Your task to perform on an android device: toggle data saver in the chrome app Image 0: 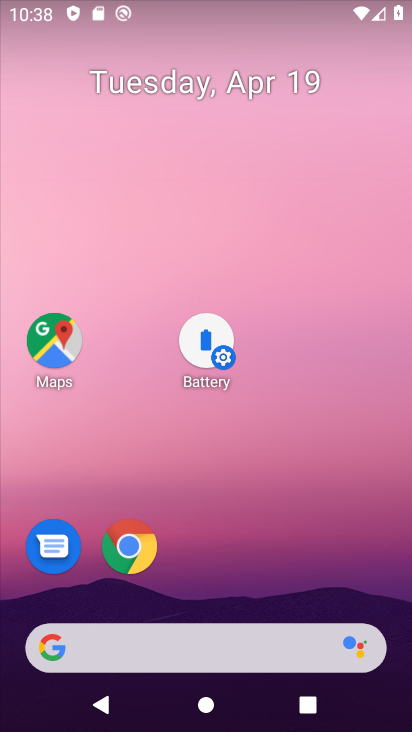
Step 0: click (131, 541)
Your task to perform on an android device: toggle data saver in the chrome app Image 1: 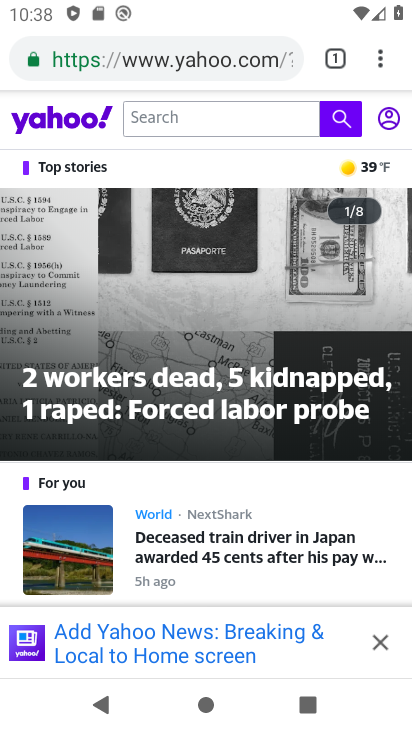
Step 1: click (376, 59)
Your task to perform on an android device: toggle data saver in the chrome app Image 2: 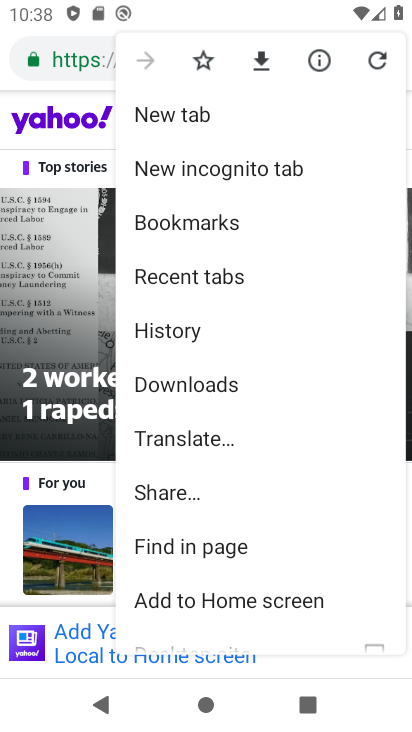
Step 2: drag from (223, 563) to (335, 128)
Your task to perform on an android device: toggle data saver in the chrome app Image 3: 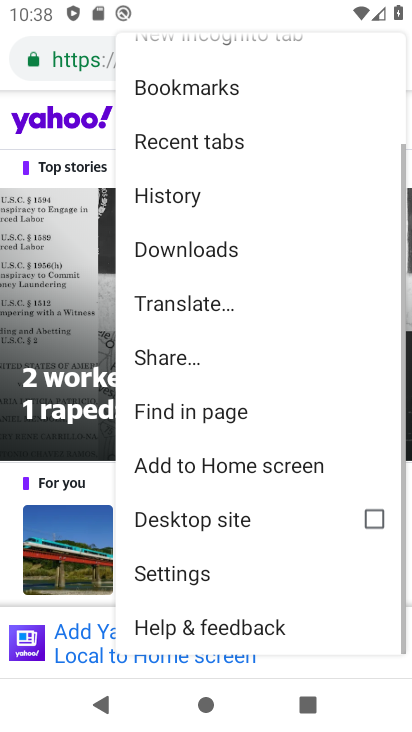
Step 3: click (165, 576)
Your task to perform on an android device: toggle data saver in the chrome app Image 4: 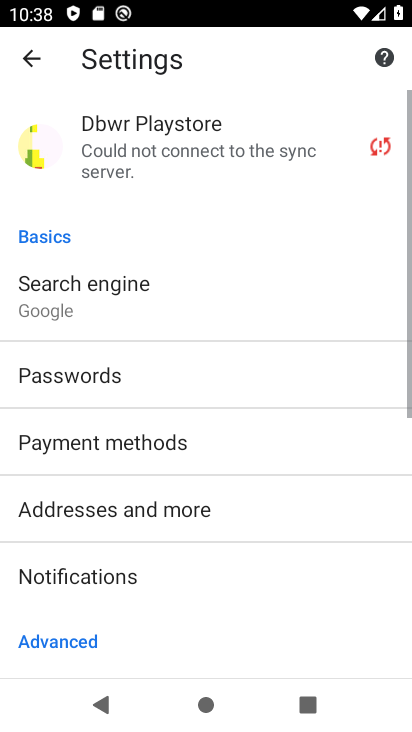
Step 4: drag from (142, 564) to (219, 159)
Your task to perform on an android device: toggle data saver in the chrome app Image 5: 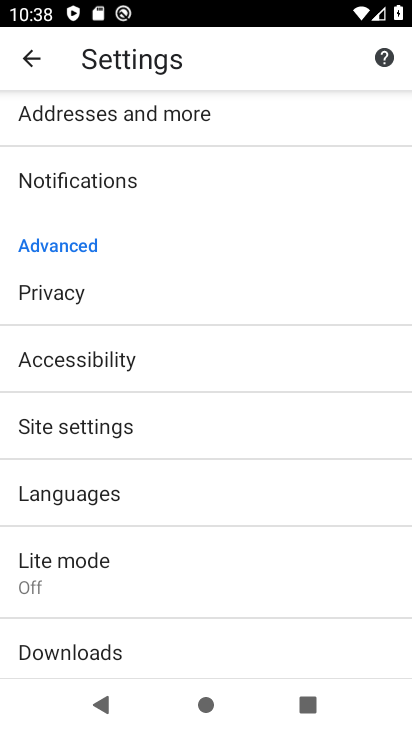
Step 5: click (153, 561)
Your task to perform on an android device: toggle data saver in the chrome app Image 6: 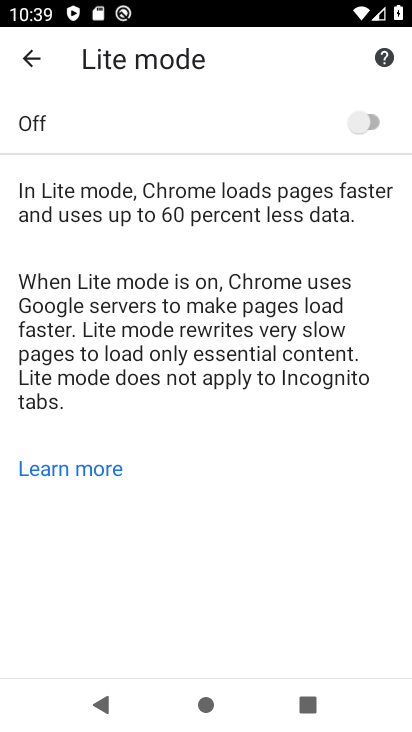
Step 6: click (350, 121)
Your task to perform on an android device: toggle data saver in the chrome app Image 7: 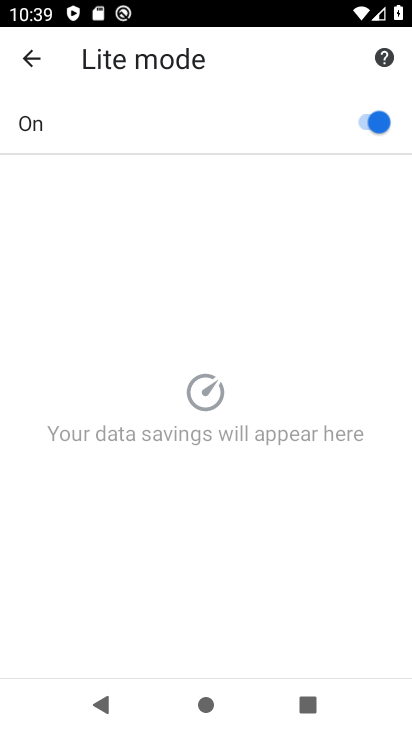
Step 7: task complete